Your task to perform on an android device: delete the emails in spam in the gmail app Image 0: 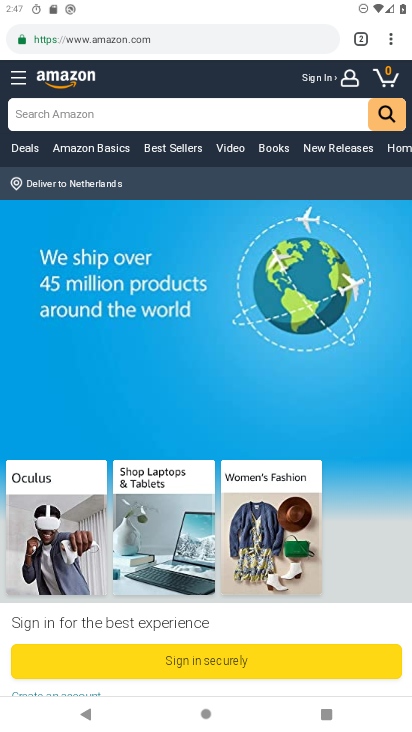
Step 0: press home button
Your task to perform on an android device: delete the emails in spam in the gmail app Image 1: 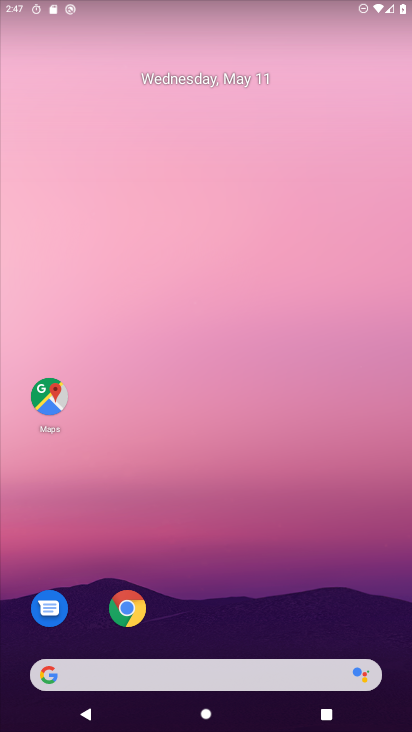
Step 1: task complete